Your task to perform on an android device: Go to Amazon Image 0: 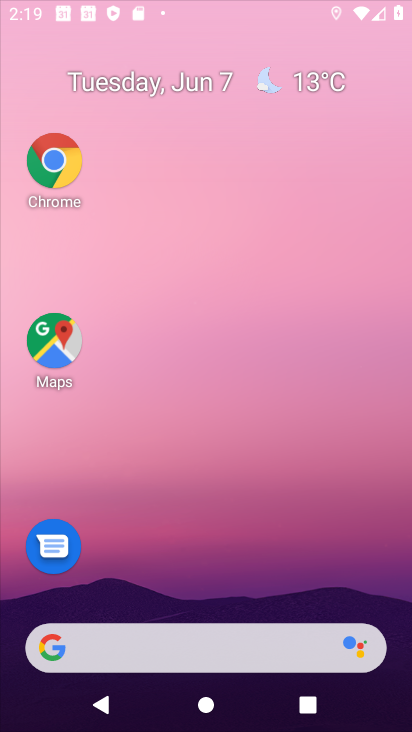
Step 0: drag from (181, 573) to (307, 119)
Your task to perform on an android device: Go to Amazon Image 1: 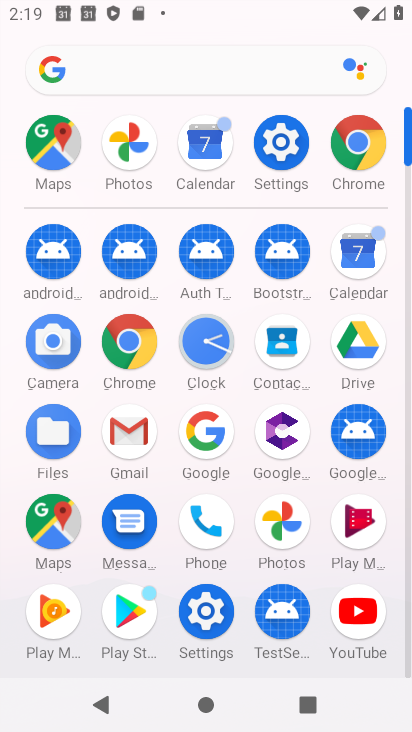
Step 1: click (124, 27)
Your task to perform on an android device: Go to Amazon Image 2: 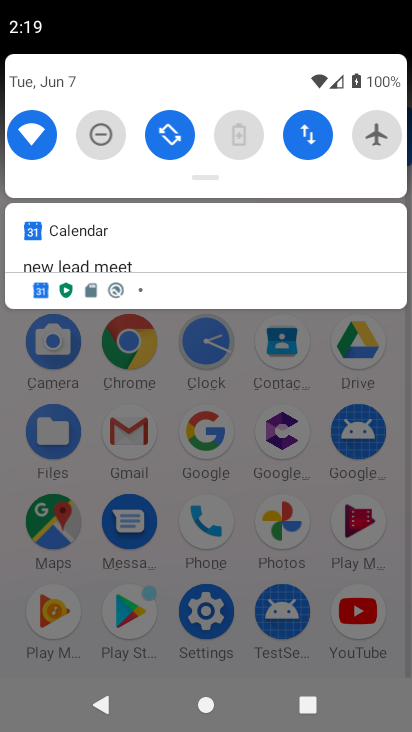
Step 2: click (122, 52)
Your task to perform on an android device: Go to Amazon Image 3: 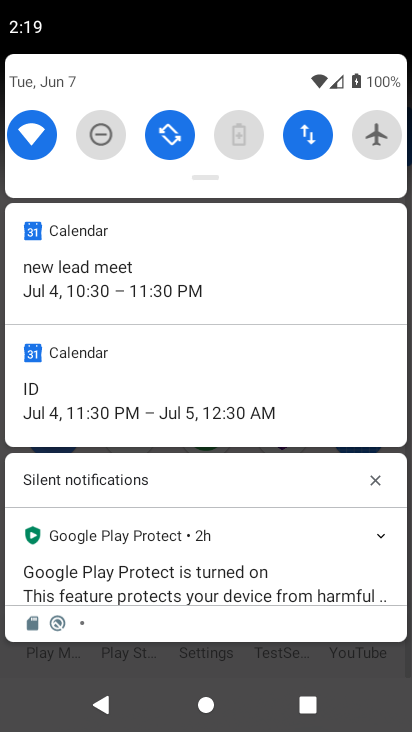
Step 3: press back button
Your task to perform on an android device: Go to Amazon Image 4: 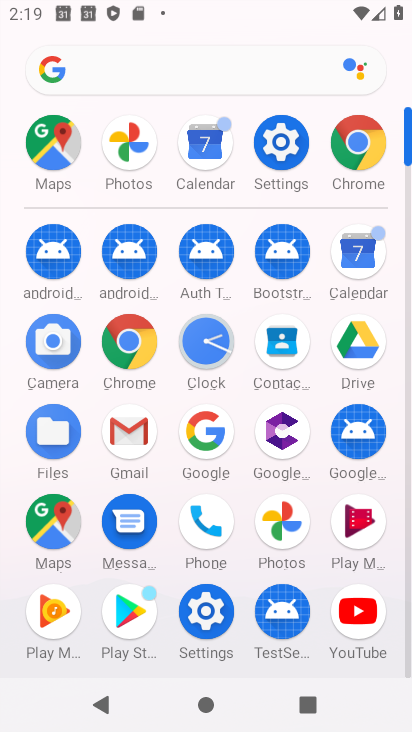
Step 4: click (133, 64)
Your task to perform on an android device: Go to Amazon Image 5: 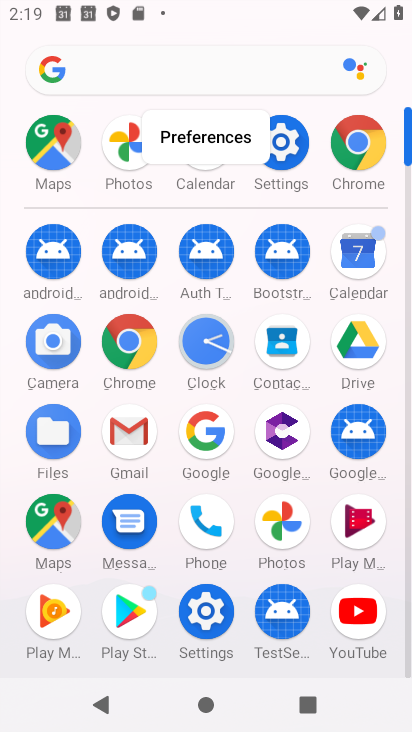
Step 5: click (141, 68)
Your task to perform on an android device: Go to Amazon Image 6: 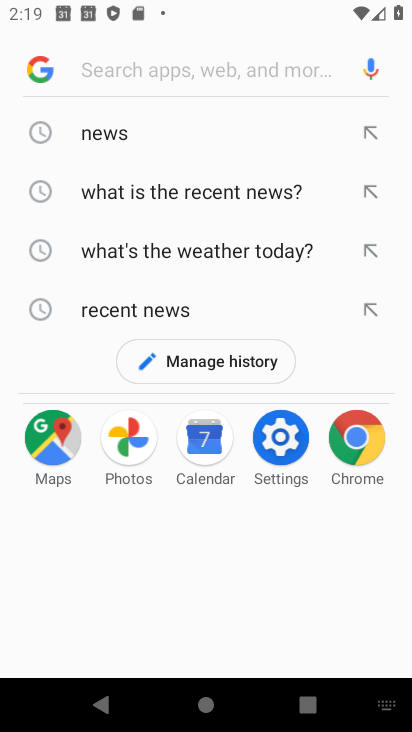
Step 6: type "Amazon"
Your task to perform on an android device: Go to Amazon Image 7: 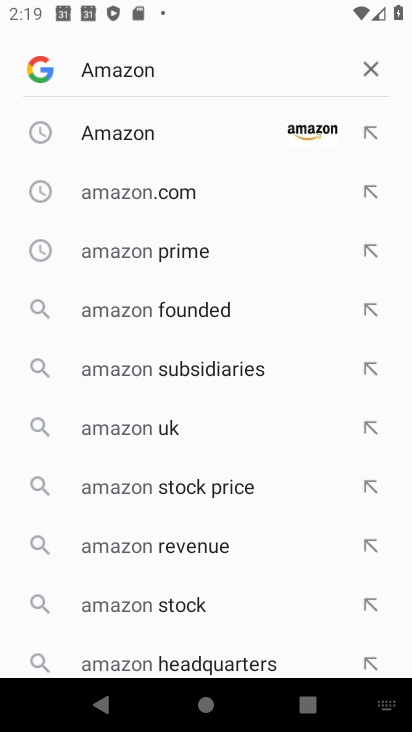
Step 7: click (179, 126)
Your task to perform on an android device: Go to Amazon Image 8: 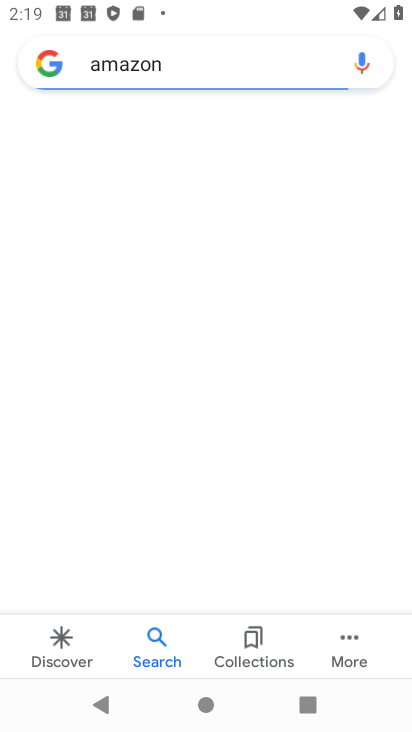
Step 8: drag from (216, 497) to (289, 176)
Your task to perform on an android device: Go to Amazon Image 9: 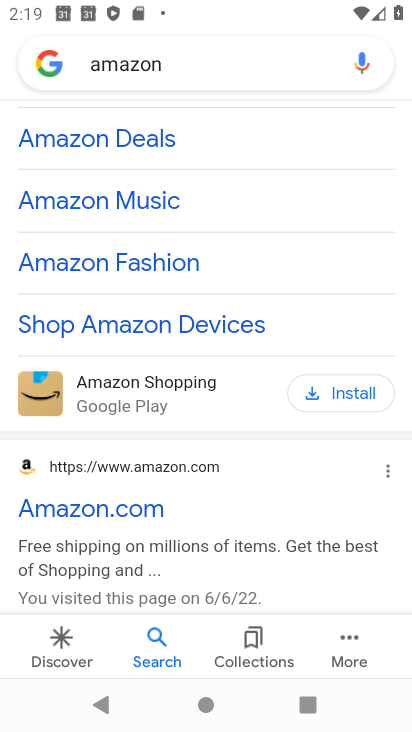
Step 9: drag from (234, 208) to (272, 731)
Your task to perform on an android device: Go to Amazon Image 10: 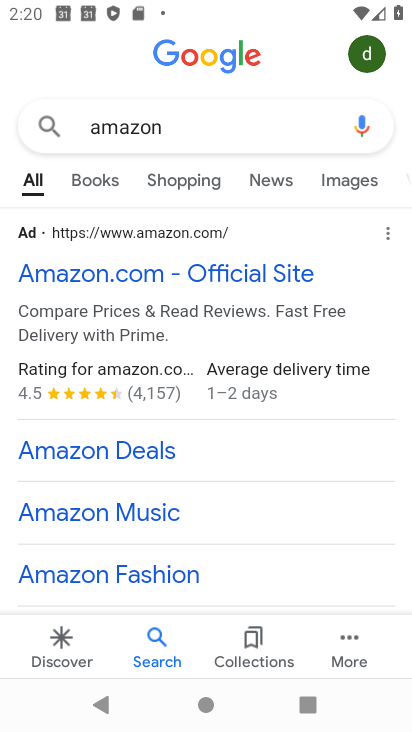
Step 10: click (66, 262)
Your task to perform on an android device: Go to Amazon Image 11: 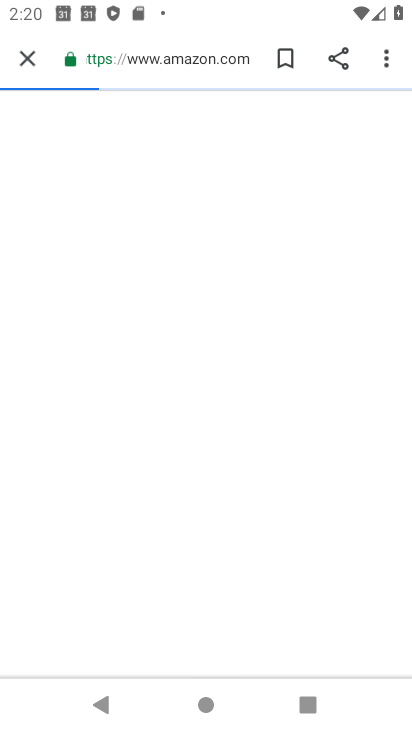
Step 11: task complete